Your task to perform on an android device: change notifications settings Image 0: 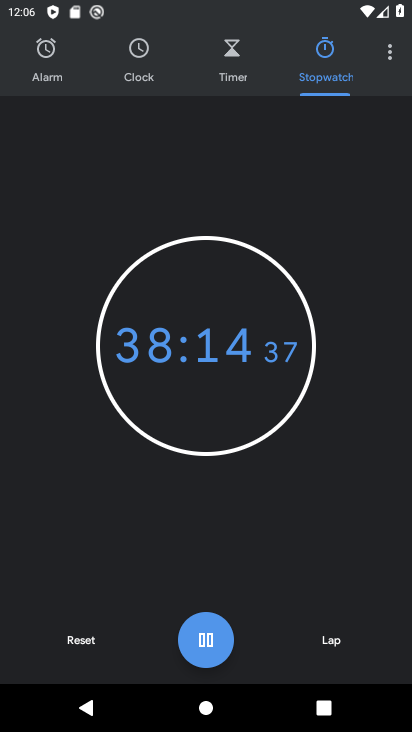
Step 0: press home button
Your task to perform on an android device: change notifications settings Image 1: 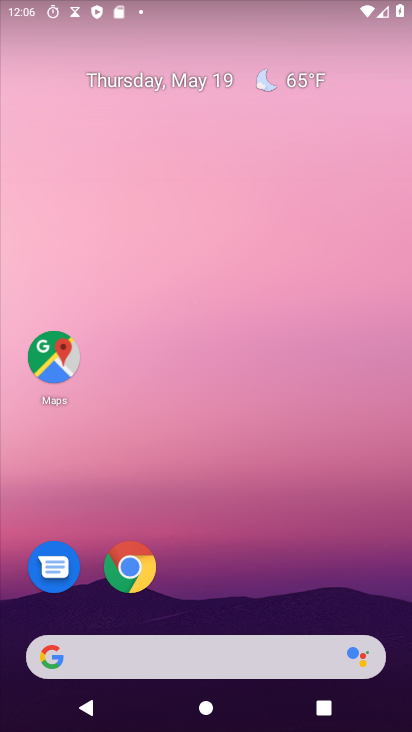
Step 1: drag from (245, 555) to (238, 151)
Your task to perform on an android device: change notifications settings Image 2: 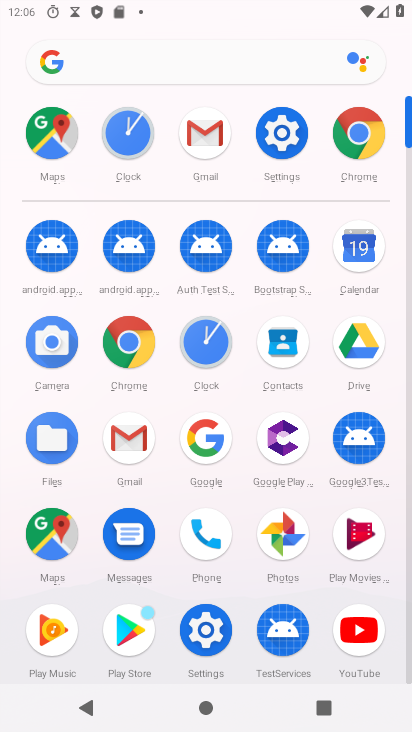
Step 2: click (286, 133)
Your task to perform on an android device: change notifications settings Image 3: 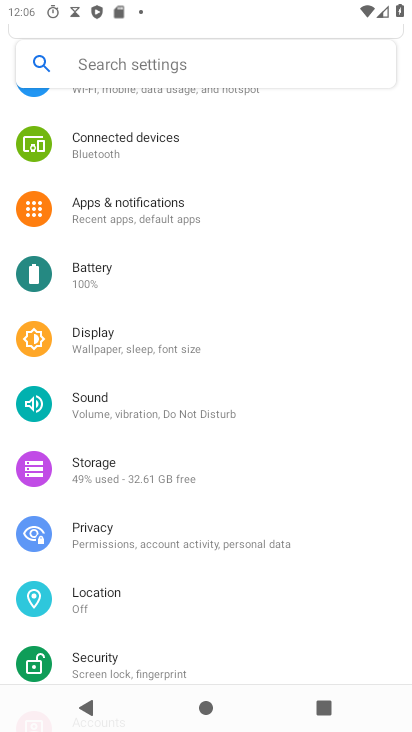
Step 3: click (210, 206)
Your task to perform on an android device: change notifications settings Image 4: 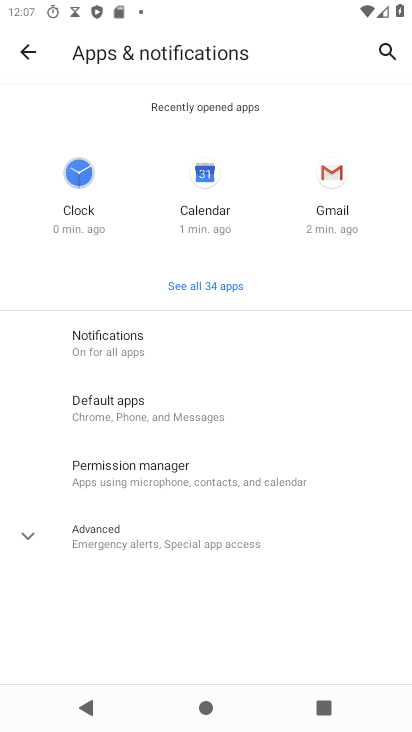
Step 4: click (172, 353)
Your task to perform on an android device: change notifications settings Image 5: 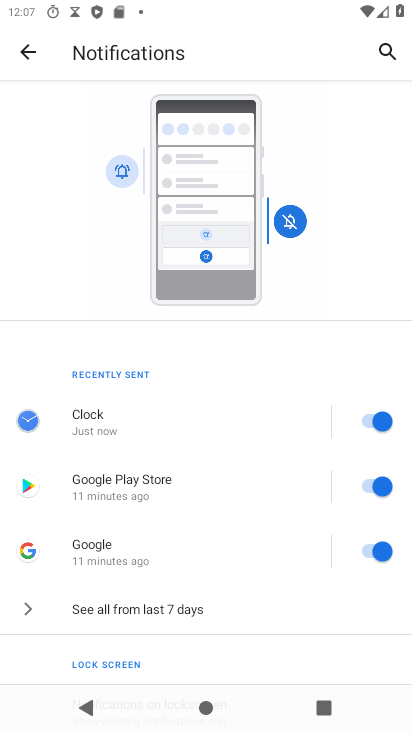
Step 5: click (366, 425)
Your task to perform on an android device: change notifications settings Image 6: 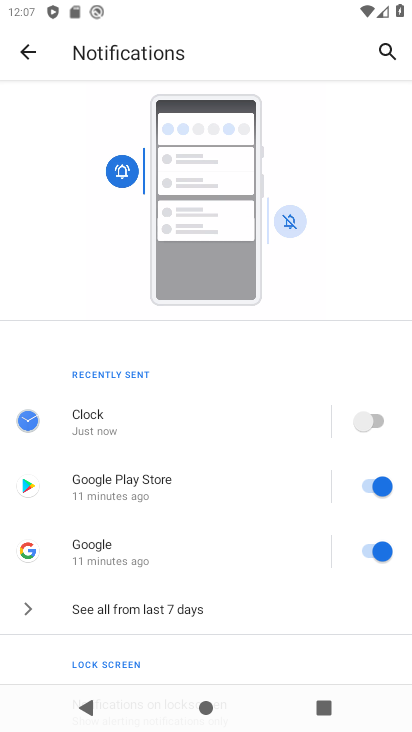
Step 6: task complete